Your task to perform on an android device: Open settings Image 0: 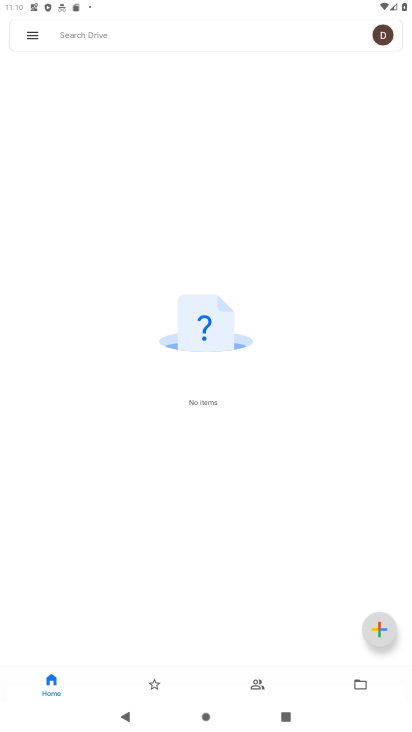
Step 0: press home button
Your task to perform on an android device: Open settings Image 1: 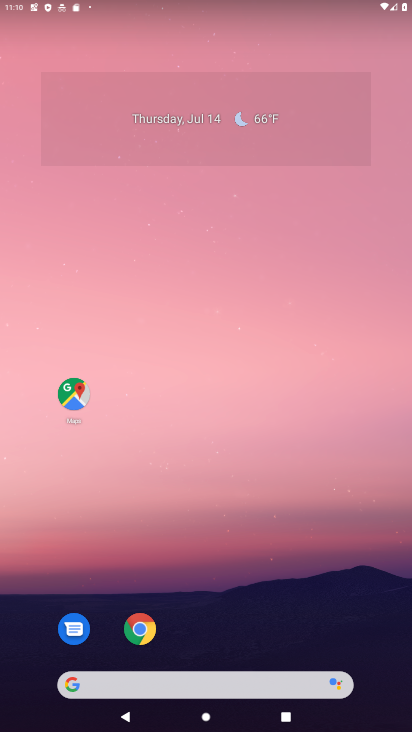
Step 1: press home button
Your task to perform on an android device: Open settings Image 2: 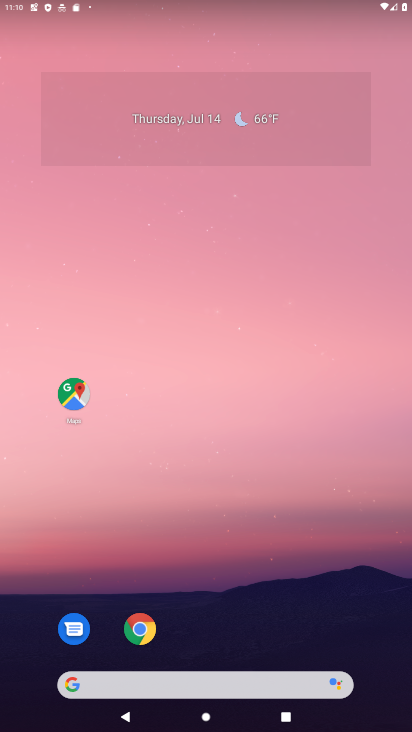
Step 2: drag from (283, 602) to (288, 120)
Your task to perform on an android device: Open settings Image 3: 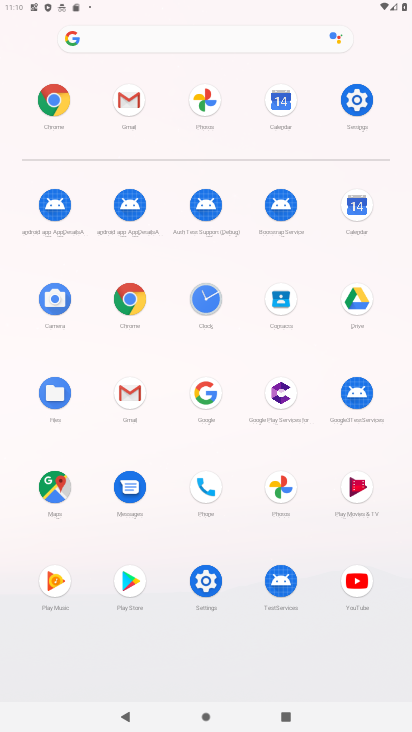
Step 3: click (351, 93)
Your task to perform on an android device: Open settings Image 4: 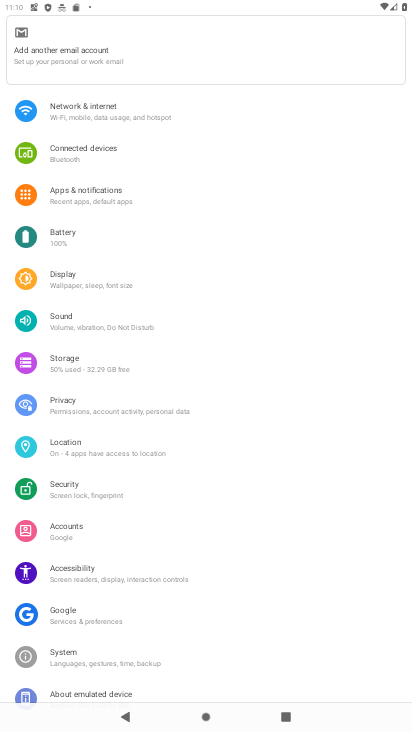
Step 4: task complete